Your task to perform on an android device: delete browsing data in the chrome app Image 0: 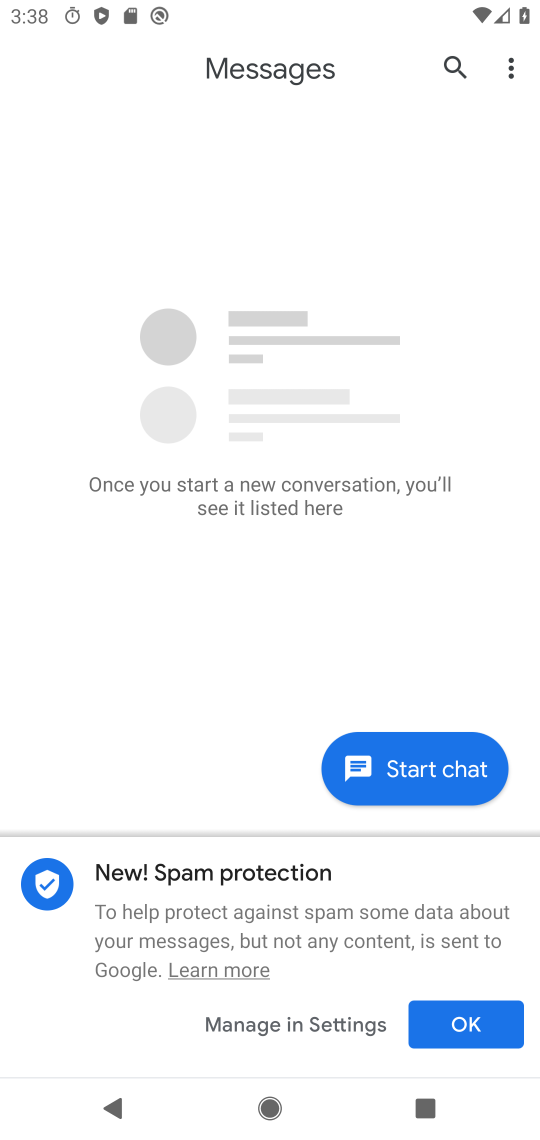
Step 0: press home button
Your task to perform on an android device: delete browsing data in the chrome app Image 1: 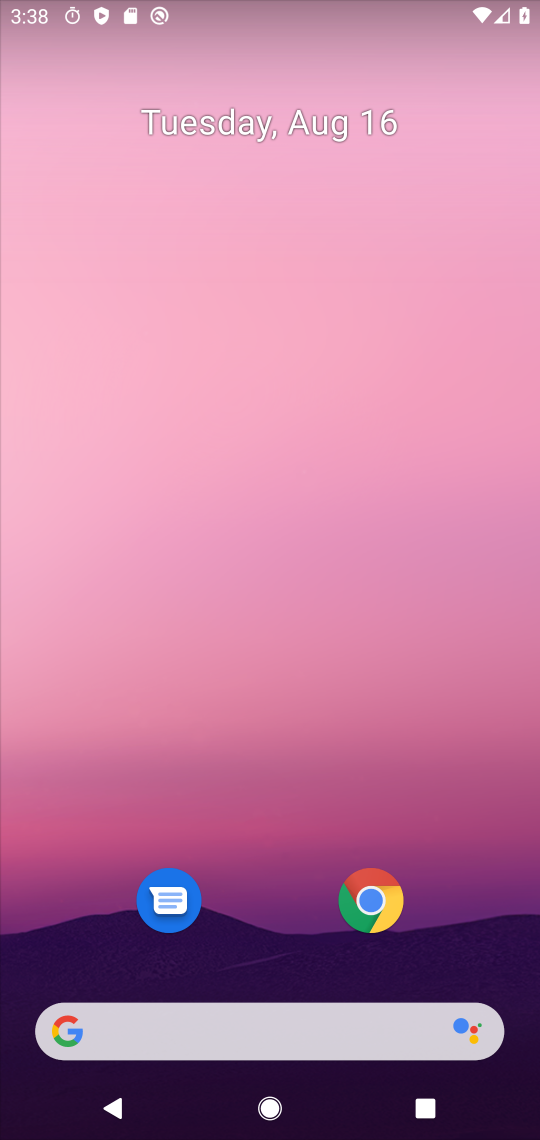
Step 1: drag from (287, 898) to (287, 50)
Your task to perform on an android device: delete browsing data in the chrome app Image 2: 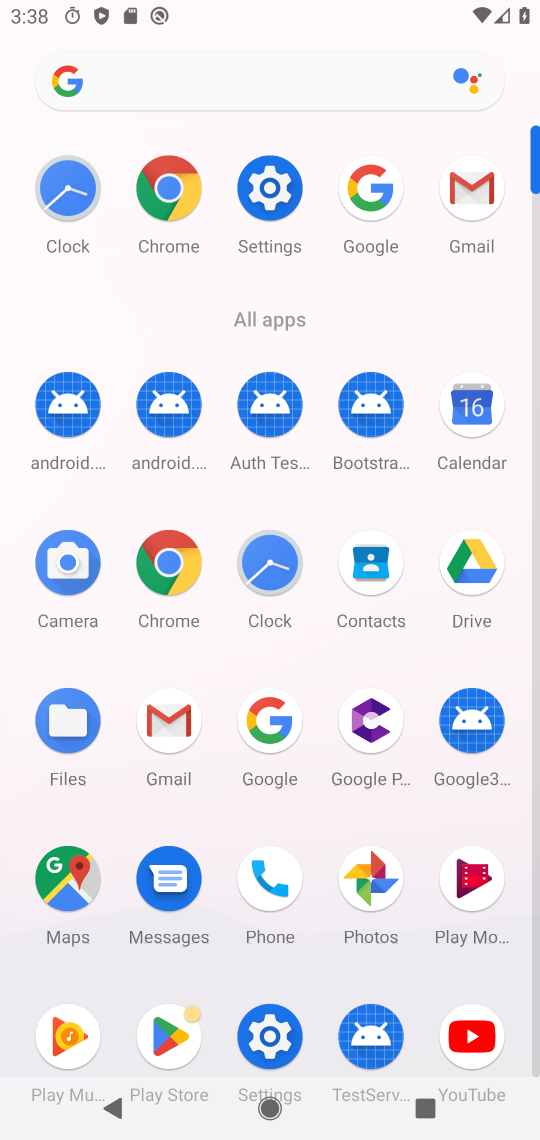
Step 2: click (161, 566)
Your task to perform on an android device: delete browsing data in the chrome app Image 3: 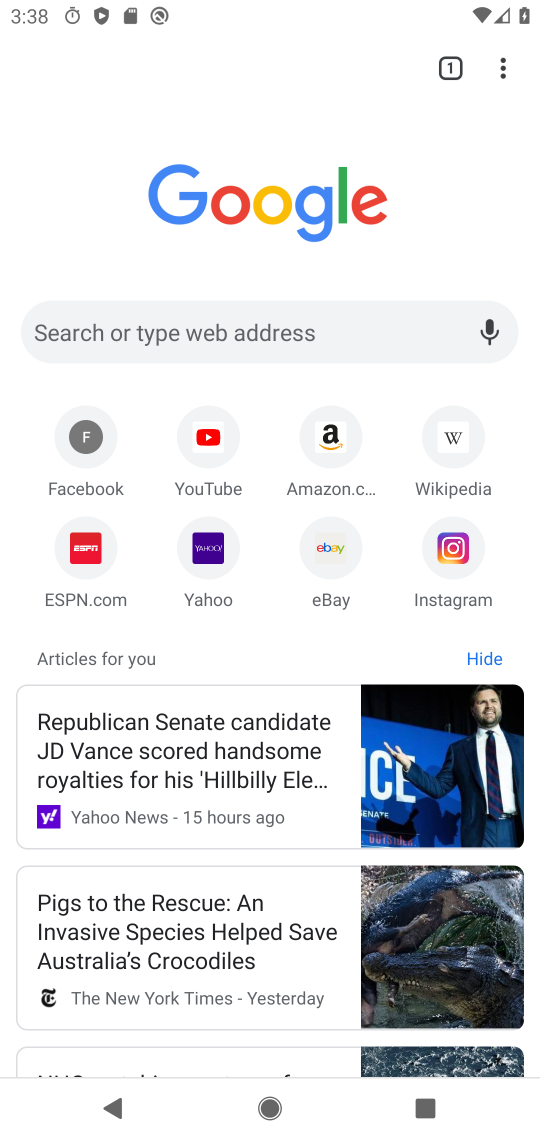
Step 3: click (509, 73)
Your task to perform on an android device: delete browsing data in the chrome app Image 4: 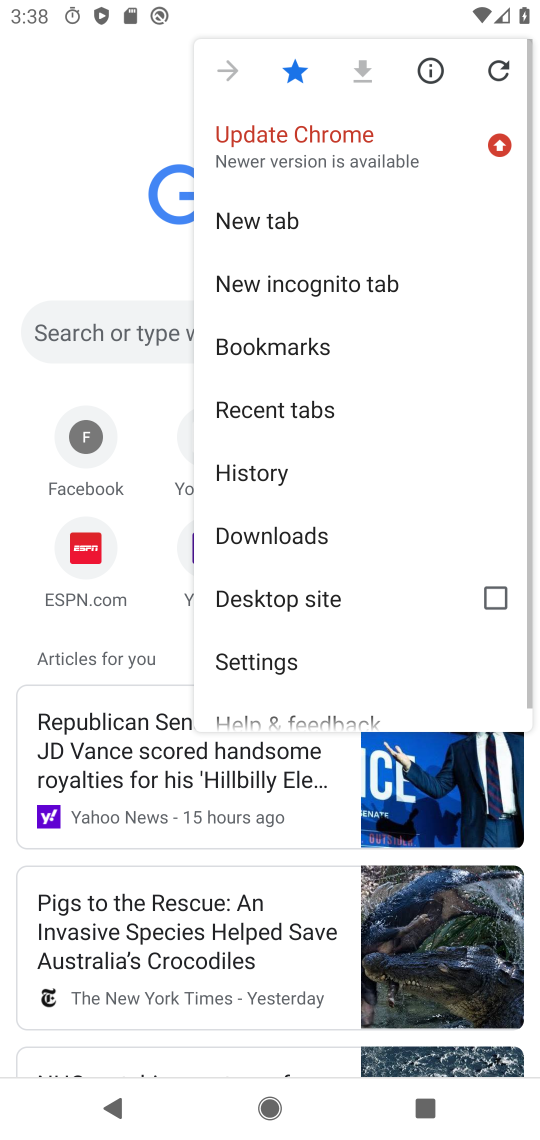
Step 4: click (251, 466)
Your task to perform on an android device: delete browsing data in the chrome app Image 5: 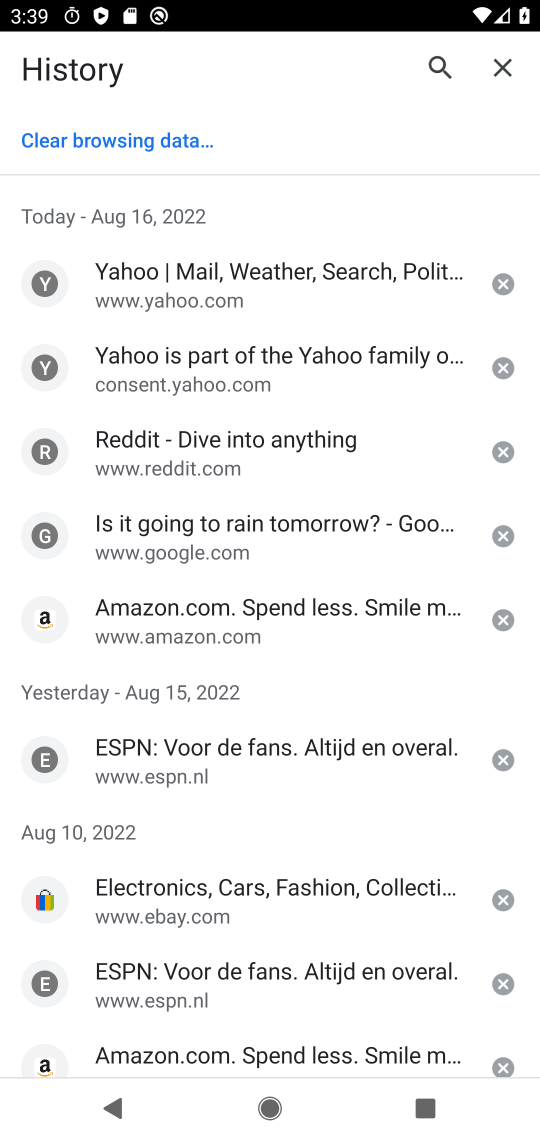
Step 5: click (110, 140)
Your task to perform on an android device: delete browsing data in the chrome app Image 6: 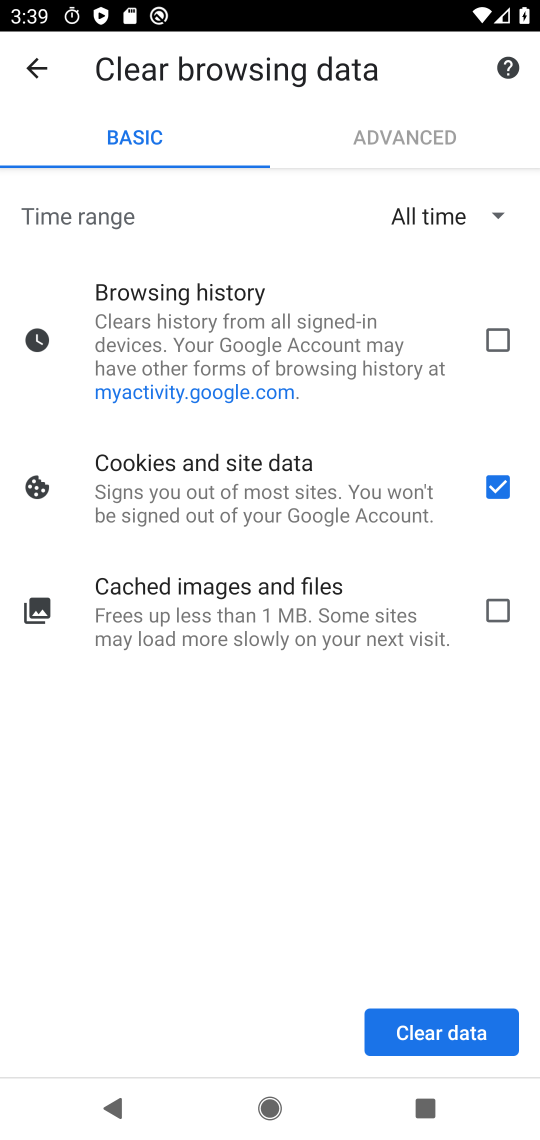
Step 6: click (498, 332)
Your task to perform on an android device: delete browsing data in the chrome app Image 7: 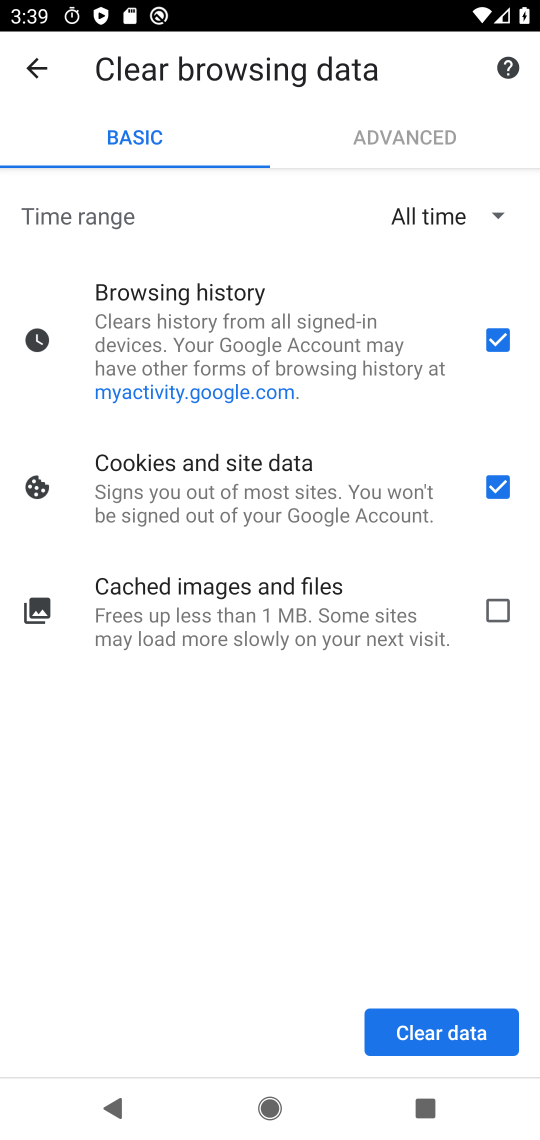
Step 7: click (506, 485)
Your task to perform on an android device: delete browsing data in the chrome app Image 8: 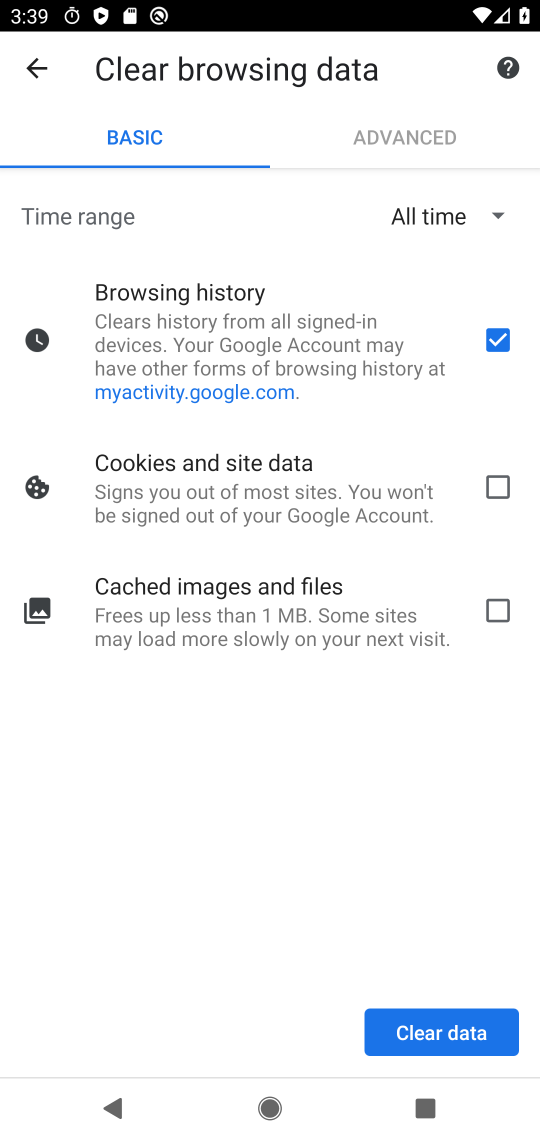
Step 8: click (427, 1029)
Your task to perform on an android device: delete browsing data in the chrome app Image 9: 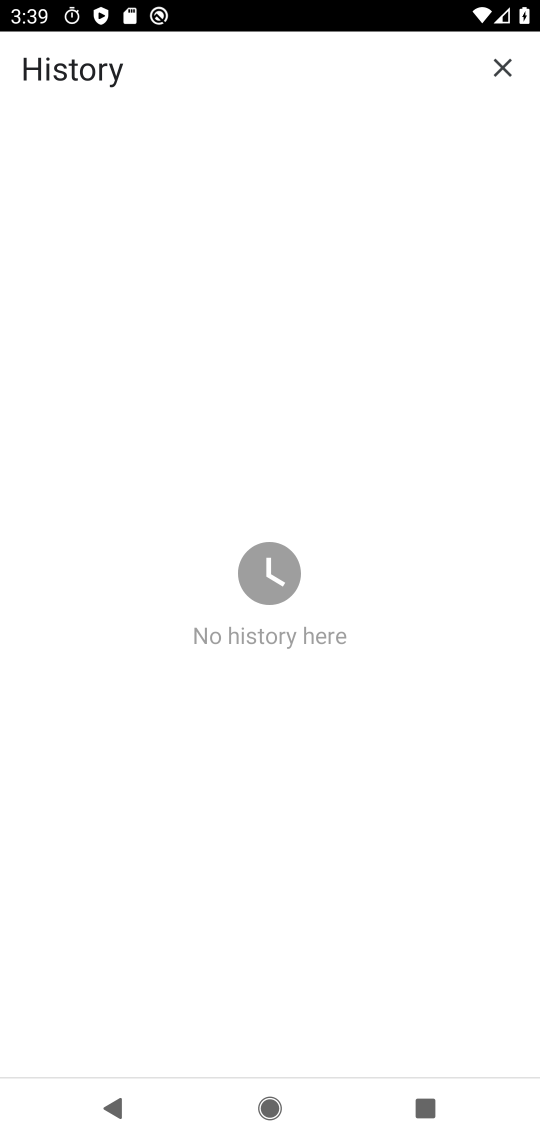
Step 9: task complete